Your task to perform on an android device: Open Youtube and go to the subscriptions tab Image 0: 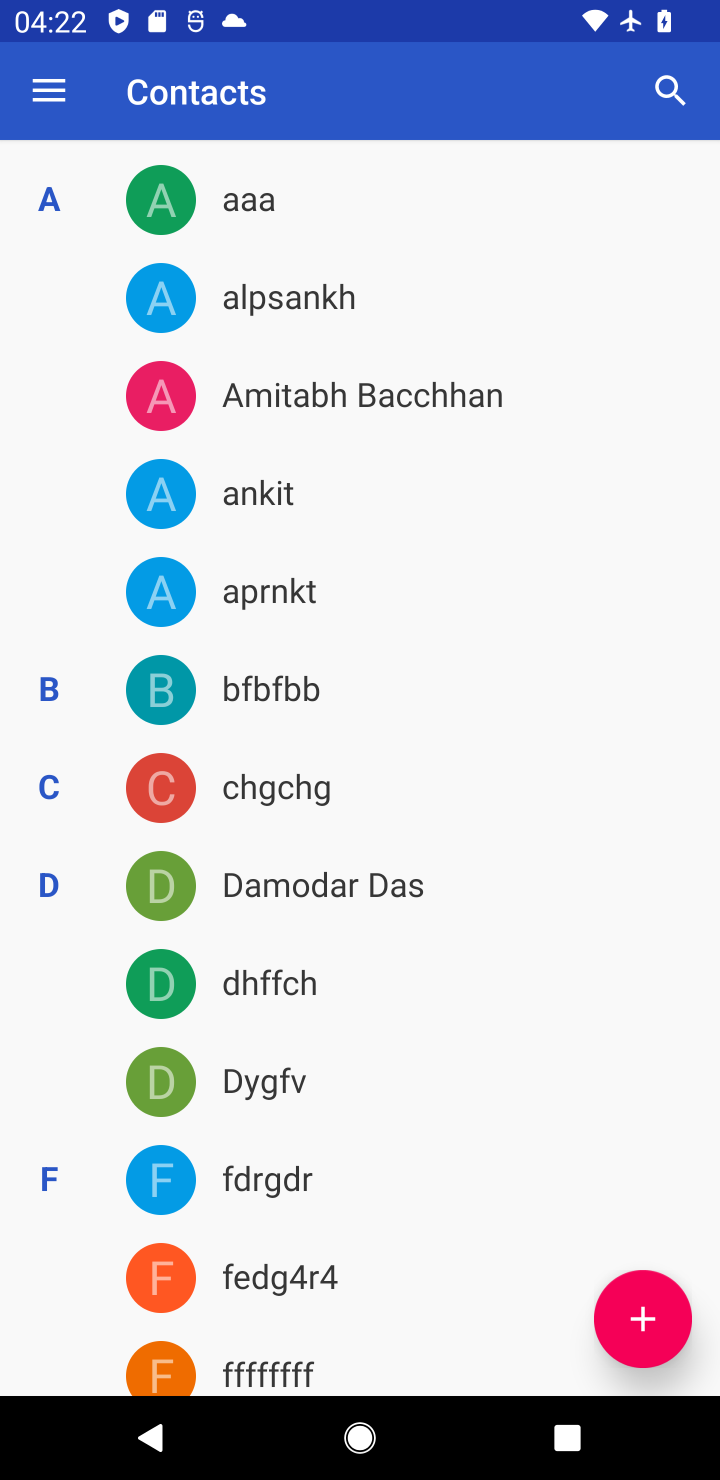
Step 0: press home button
Your task to perform on an android device: Open Youtube and go to the subscriptions tab Image 1: 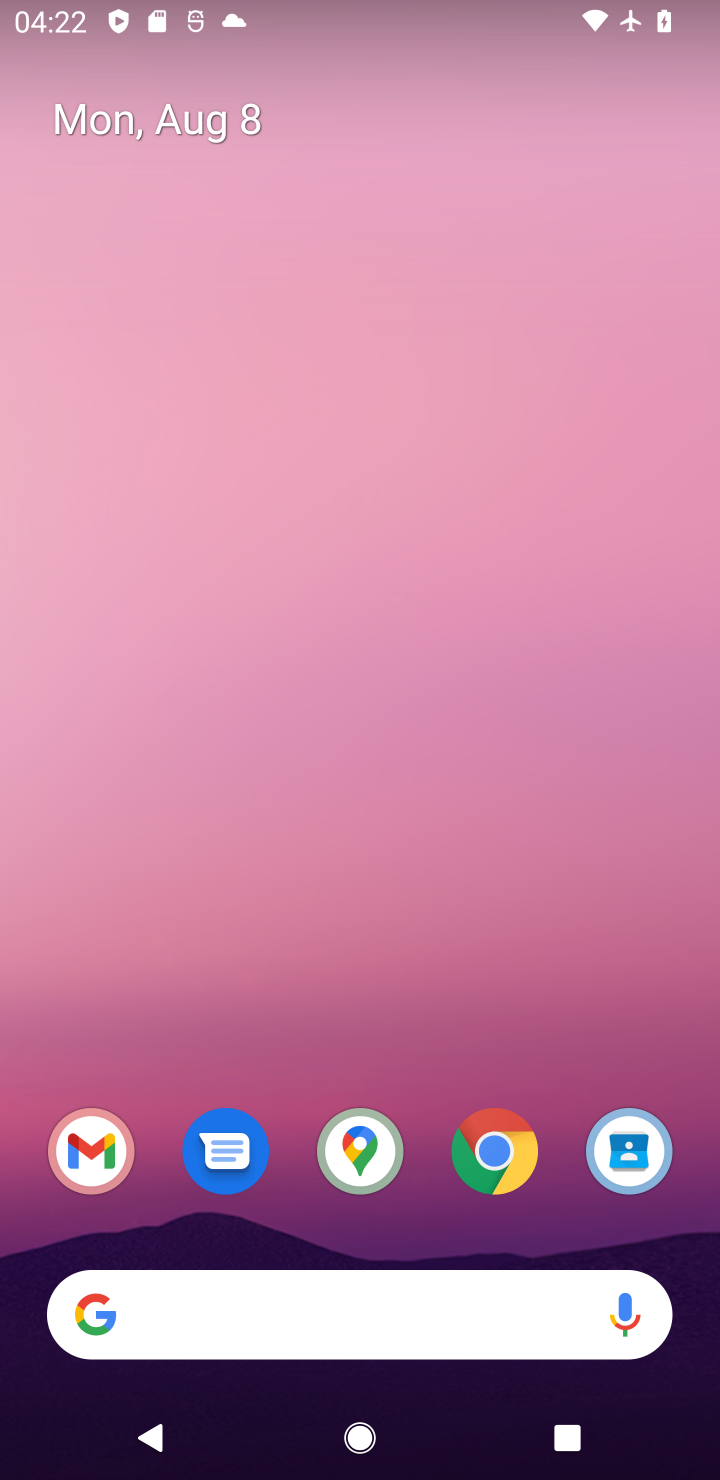
Step 1: drag from (275, 595) to (239, 354)
Your task to perform on an android device: Open Youtube and go to the subscriptions tab Image 2: 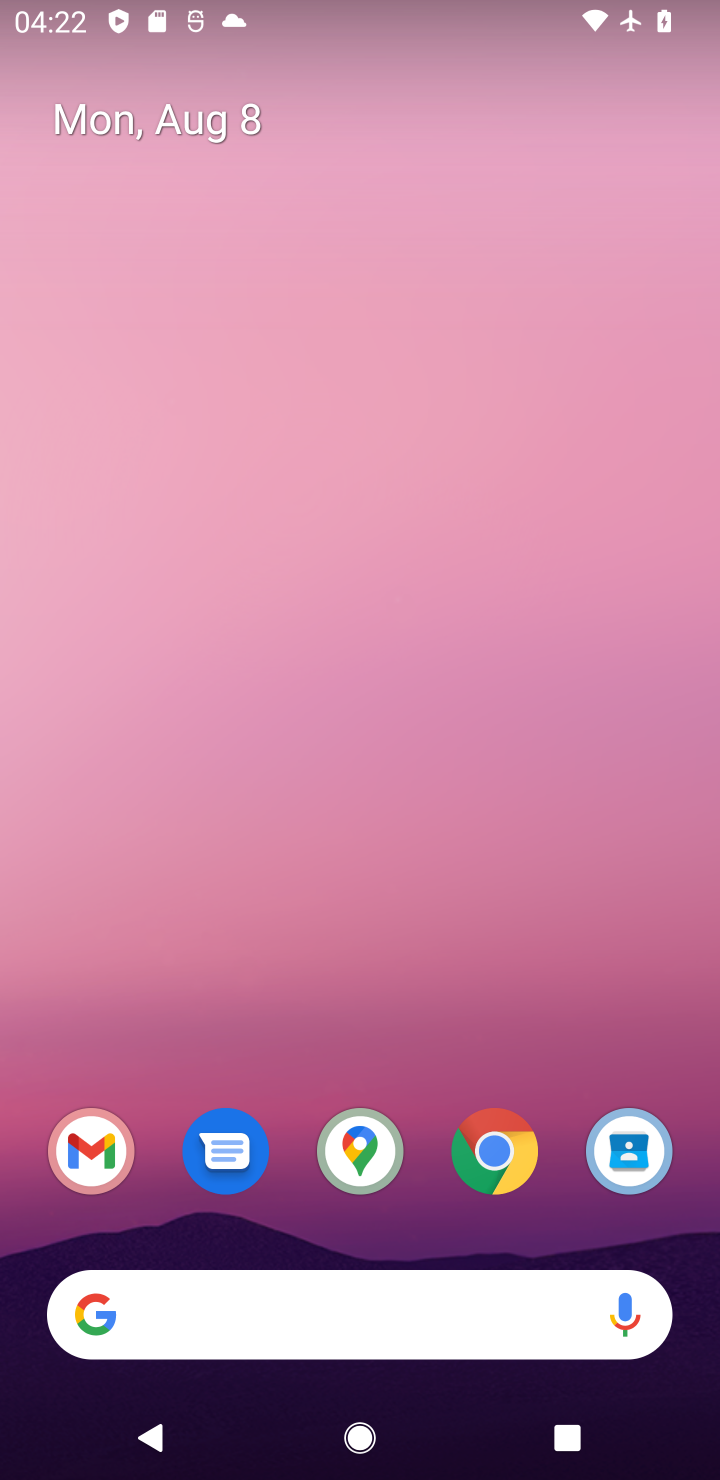
Step 2: drag from (388, 912) to (388, 0)
Your task to perform on an android device: Open Youtube and go to the subscriptions tab Image 3: 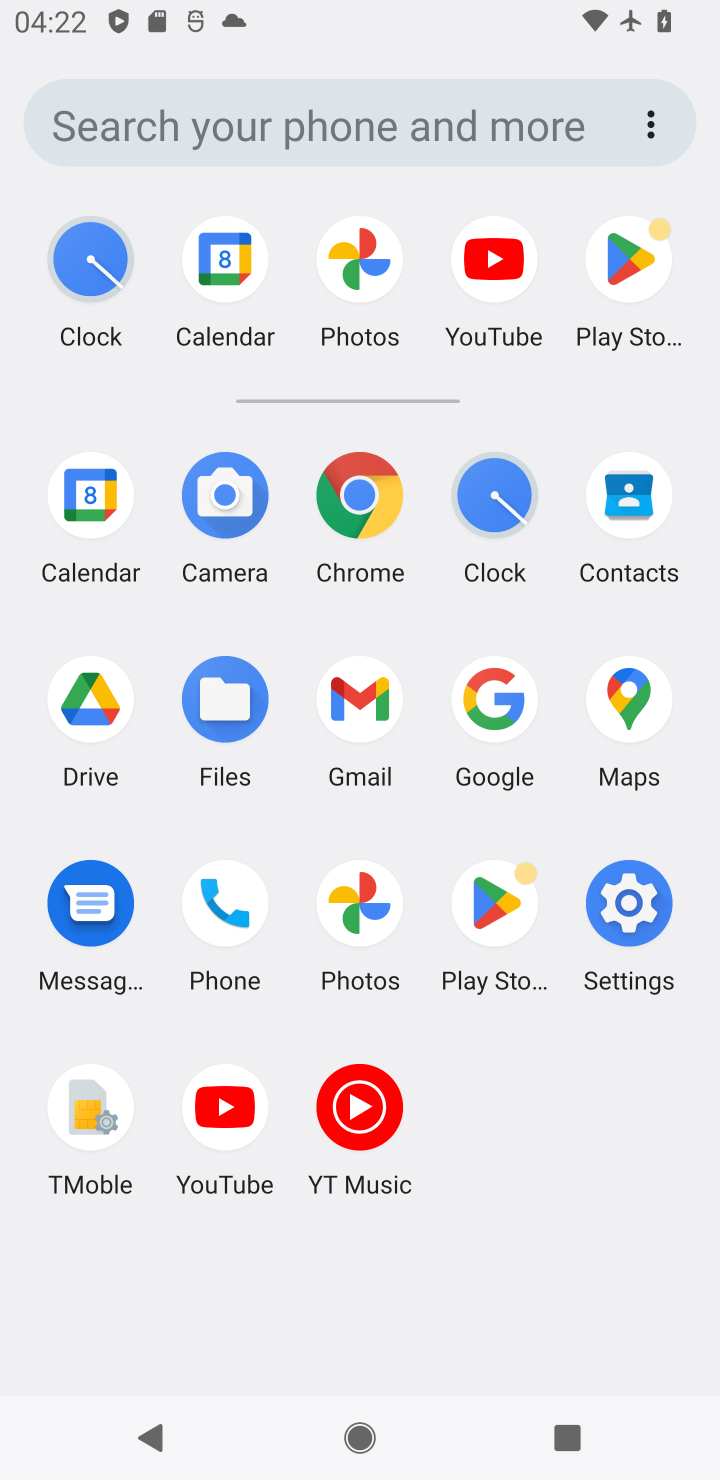
Step 3: click (235, 1131)
Your task to perform on an android device: Open Youtube and go to the subscriptions tab Image 4: 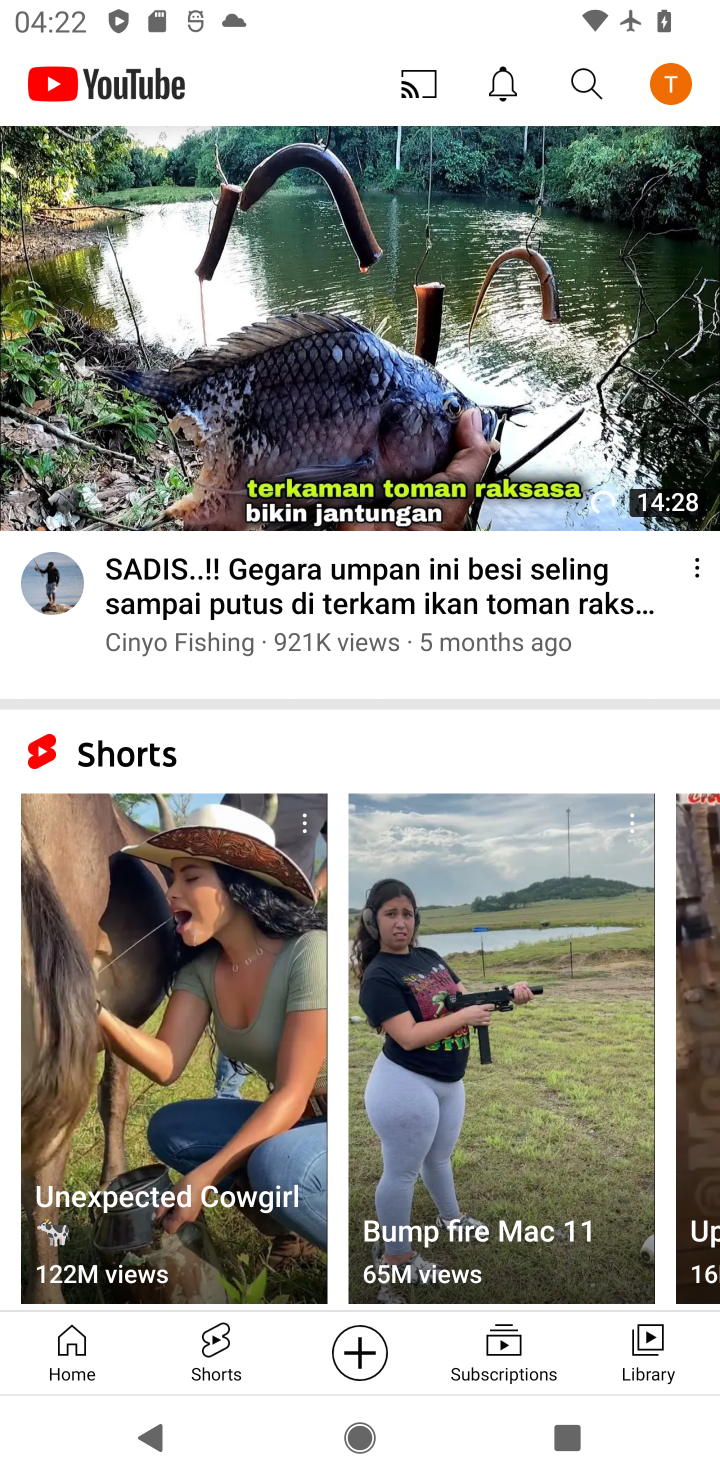
Step 4: click (480, 1358)
Your task to perform on an android device: Open Youtube and go to the subscriptions tab Image 5: 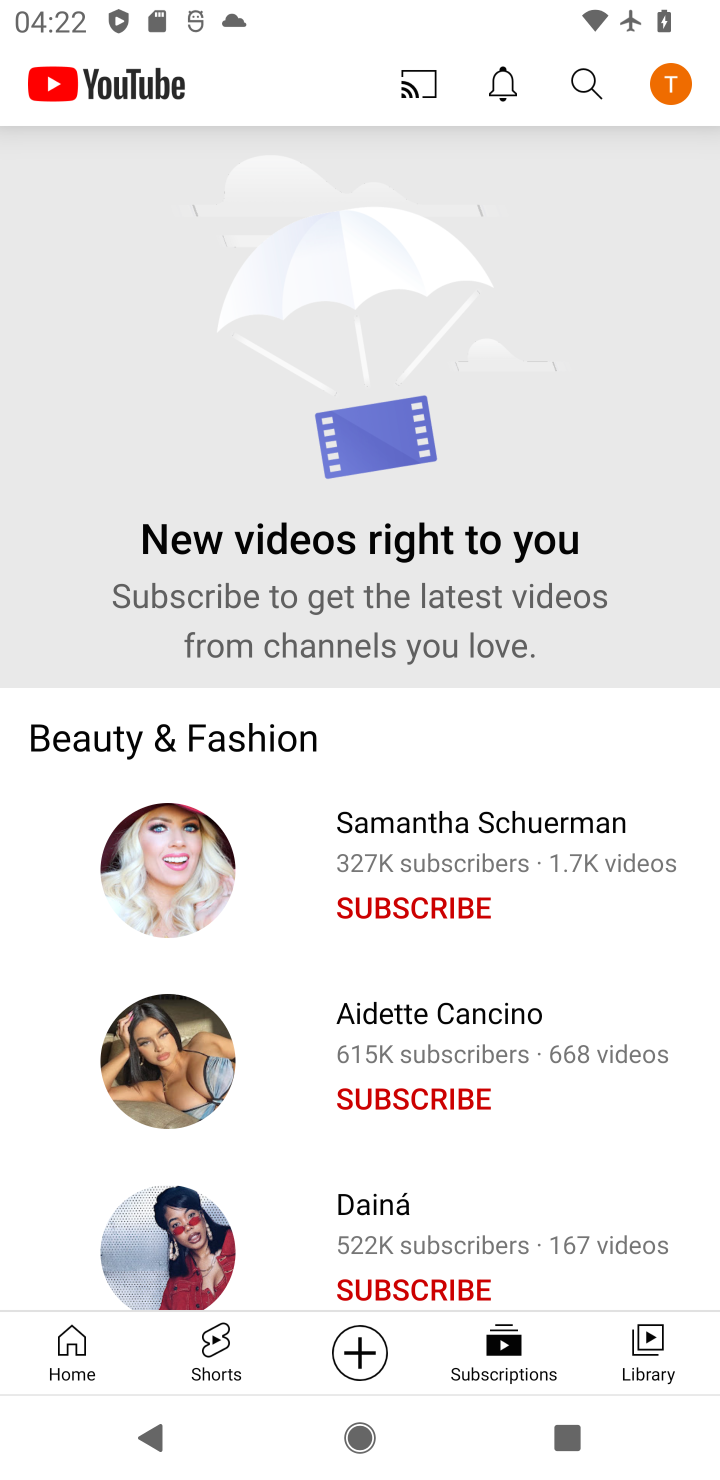
Step 5: task complete